Your task to perform on an android device: See recent photos Image 0: 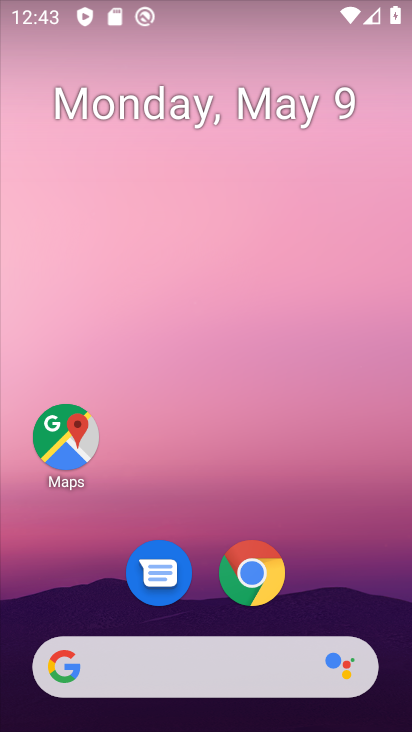
Step 0: drag from (316, 553) to (139, 79)
Your task to perform on an android device: See recent photos Image 1: 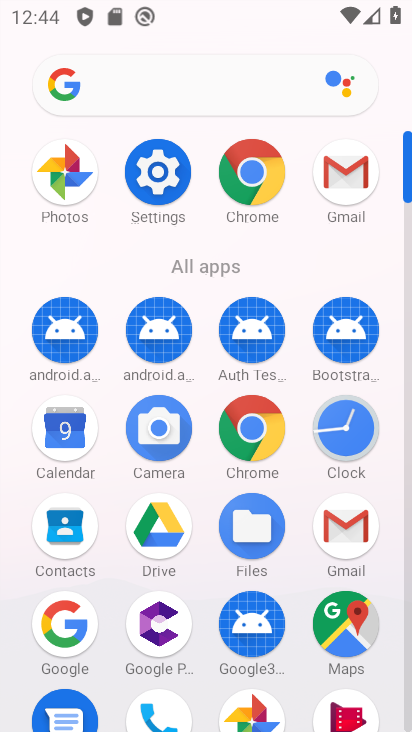
Step 1: click (256, 717)
Your task to perform on an android device: See recent photos Image 2: 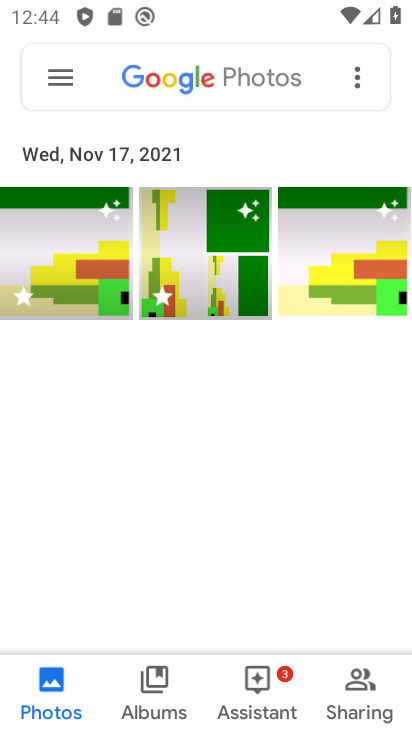
Step 2: task complete